Your task to perform on an android device: open app "Firefox Browser" (install if not already installed) Image 0: 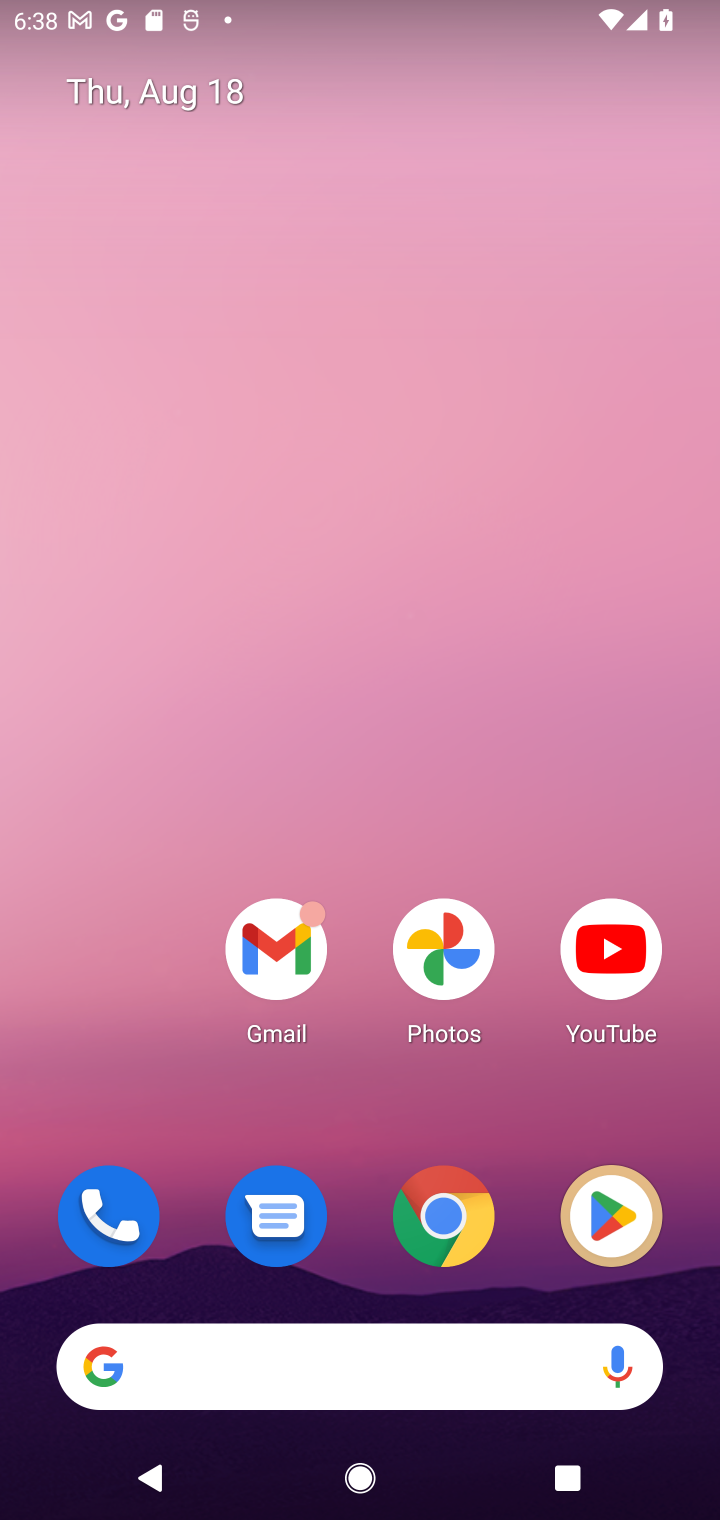
Step 0: click (608, 1220)
Your task to perform on an android device: open app "Firefox Browser" (install if not already installed) Image 1: 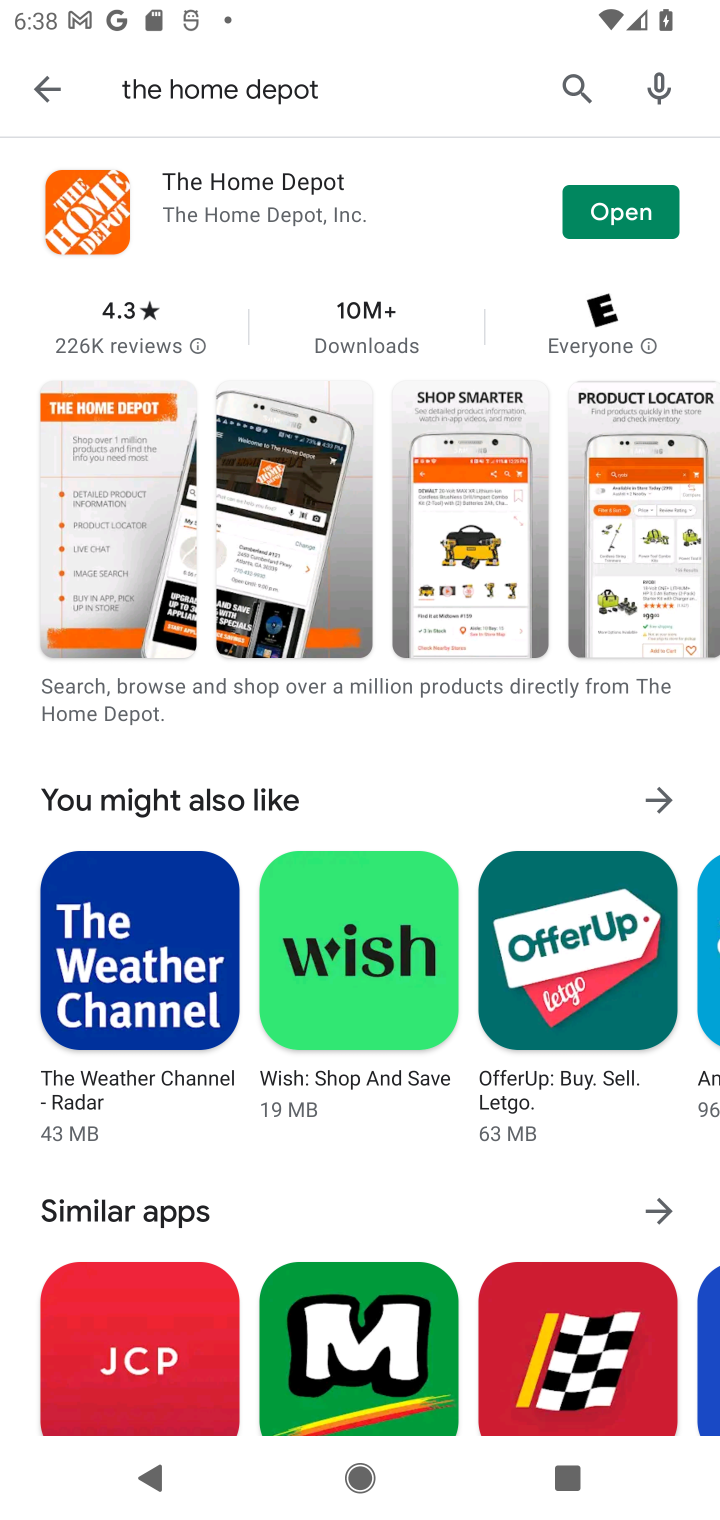
Step 1: click (567, 85)
Your task to perform on an android device: open app "Firefox Browser" (install if not already installed) Image 2: 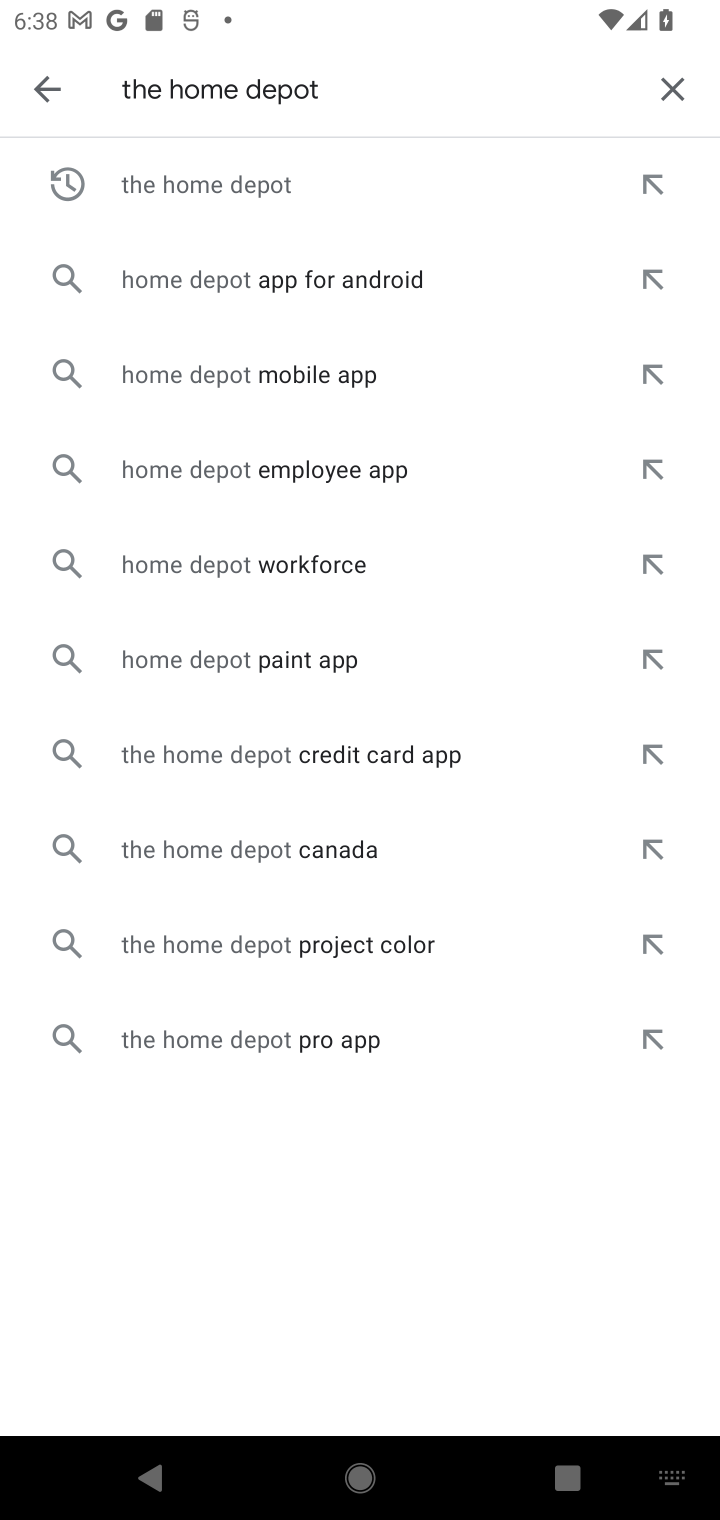
Step 2: click (667, 93)
Your task to perform on an android device: open app "Firefox Browser" (install if not already installed) Image 3: 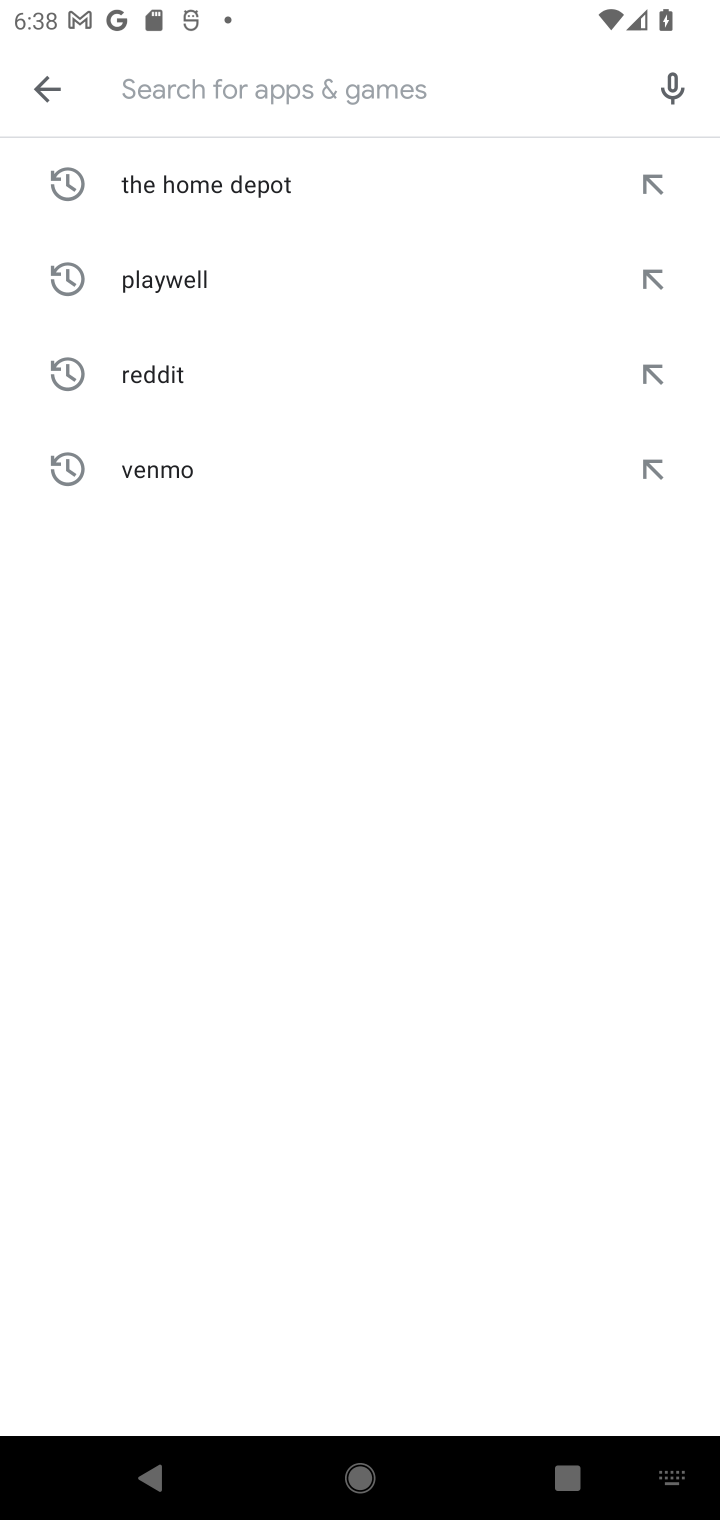
Step 3: type "Firefix Browser"
Your task to perform on an android device: open app "Firefox Browser" (install if not already installed) Image 4: 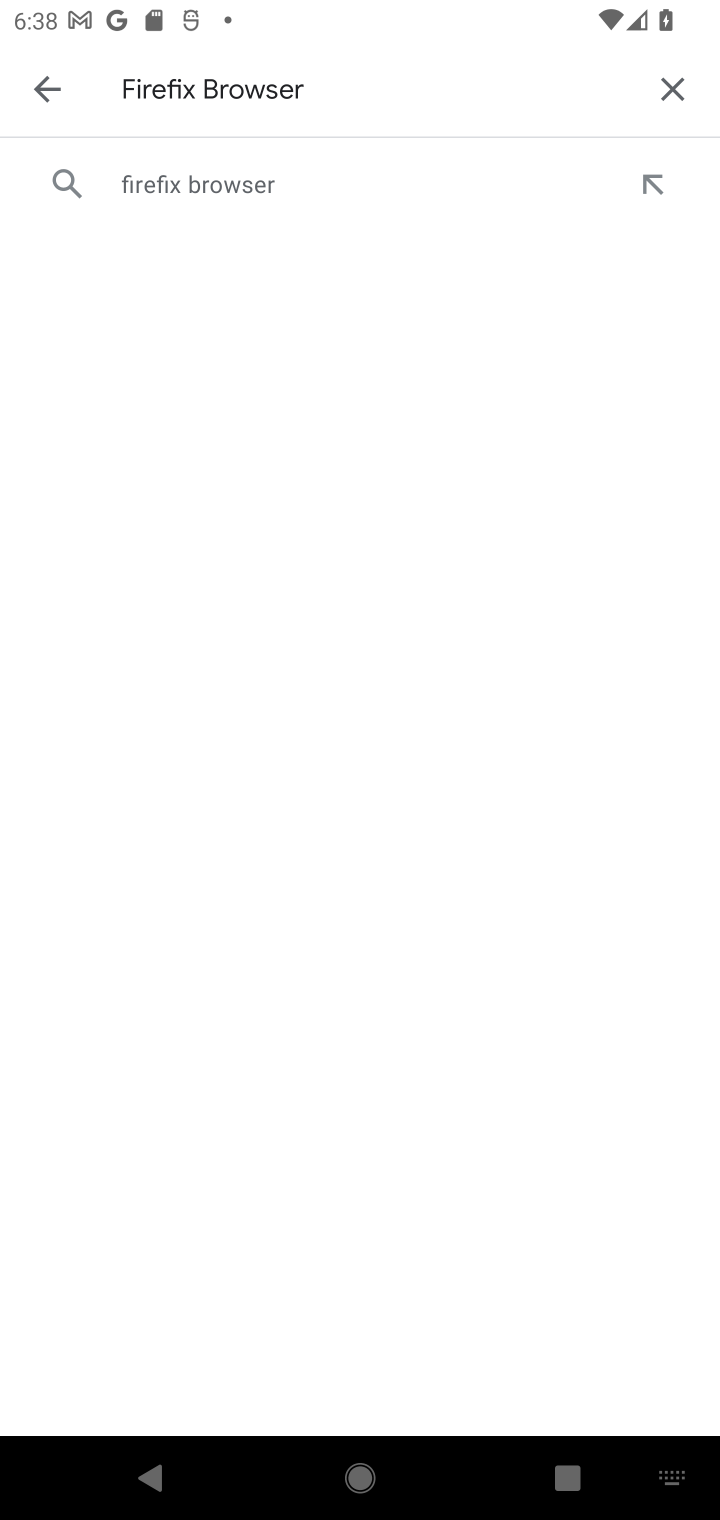
Step 4: click (177, 187)
Your task to perform on an android device: open app "Firefox Browser" (install if not already installed) Image 5: 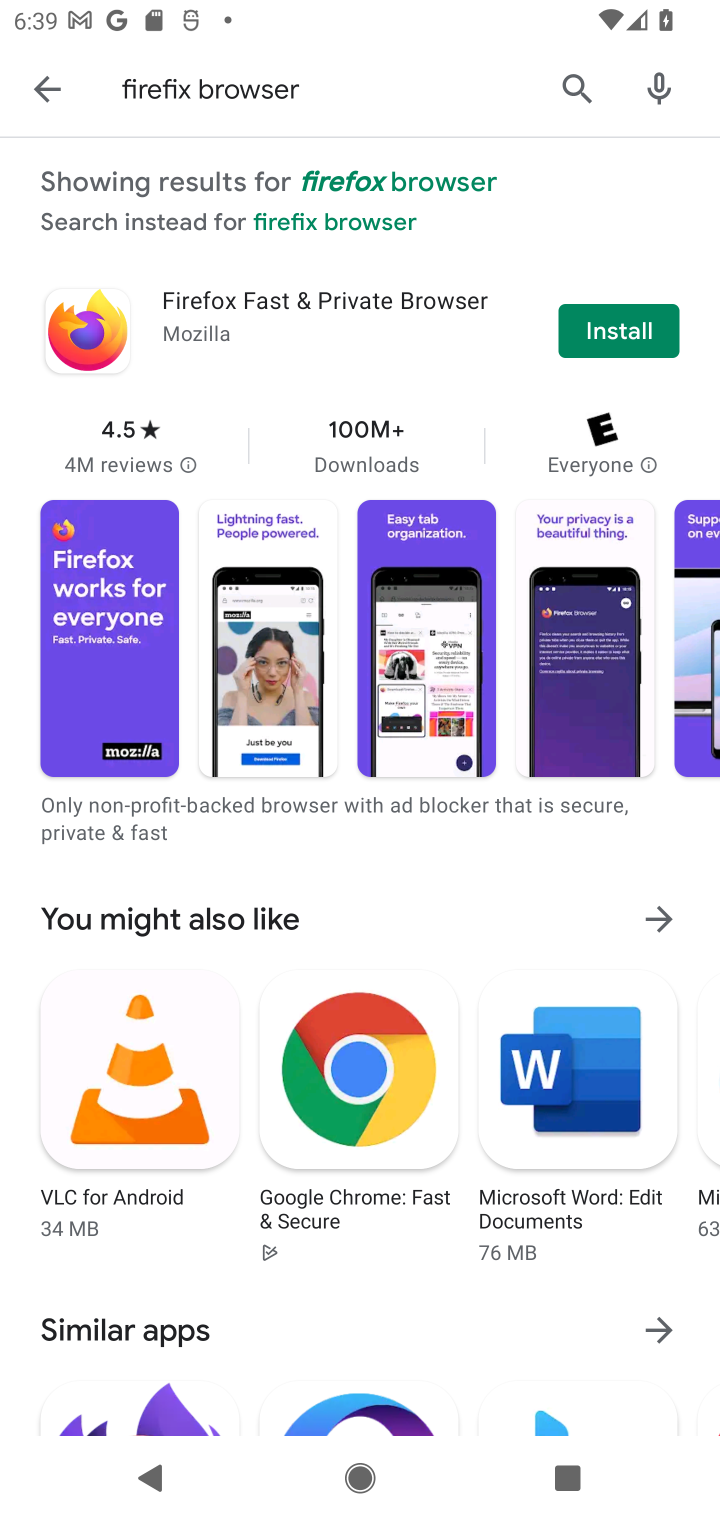
Step 5: click (613, 331)
Your task to perform on an android device: open app "Firefox Browser" (install if not already installed) Image 6: 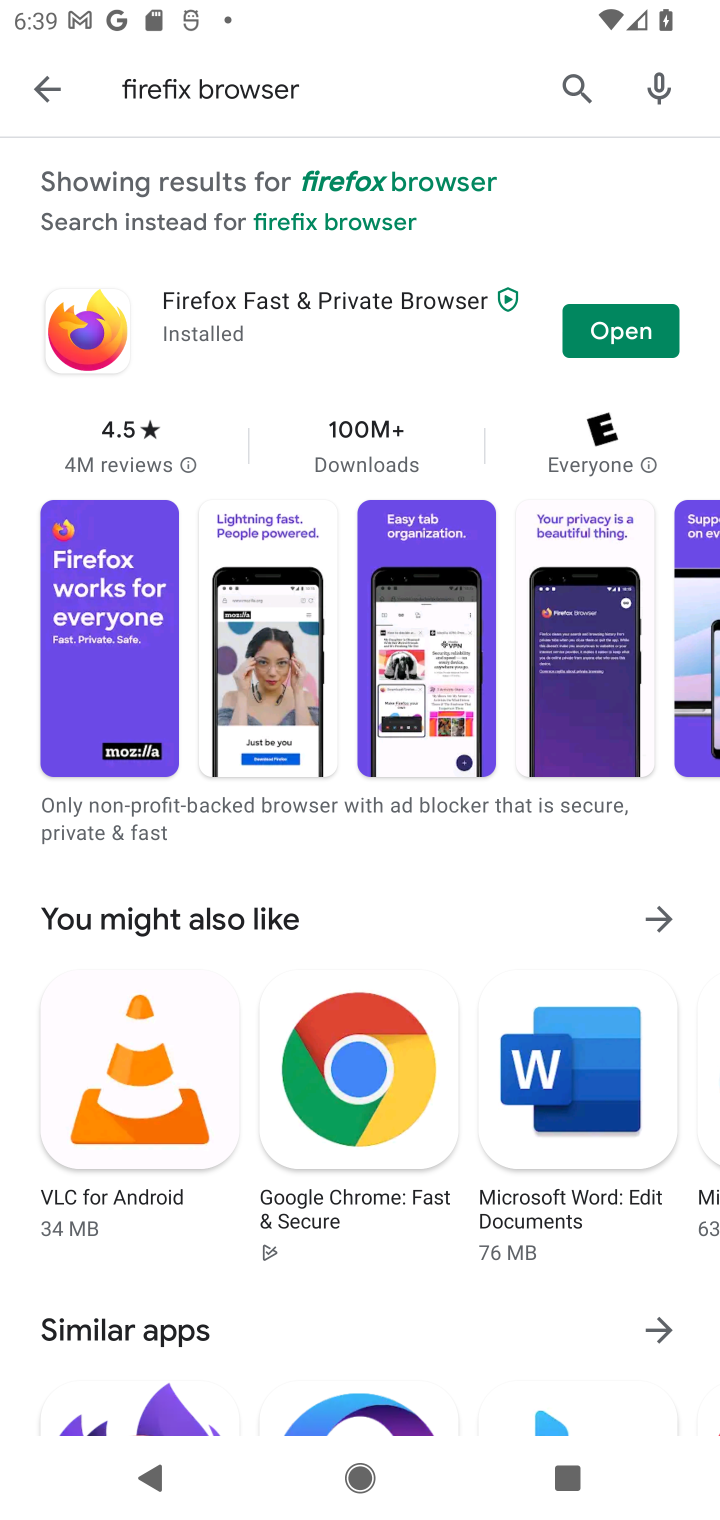
Step 6: click (619, 334)
Your task to perform on an android device: open app "Firefox Browser" (install if not already installed) Image 7: 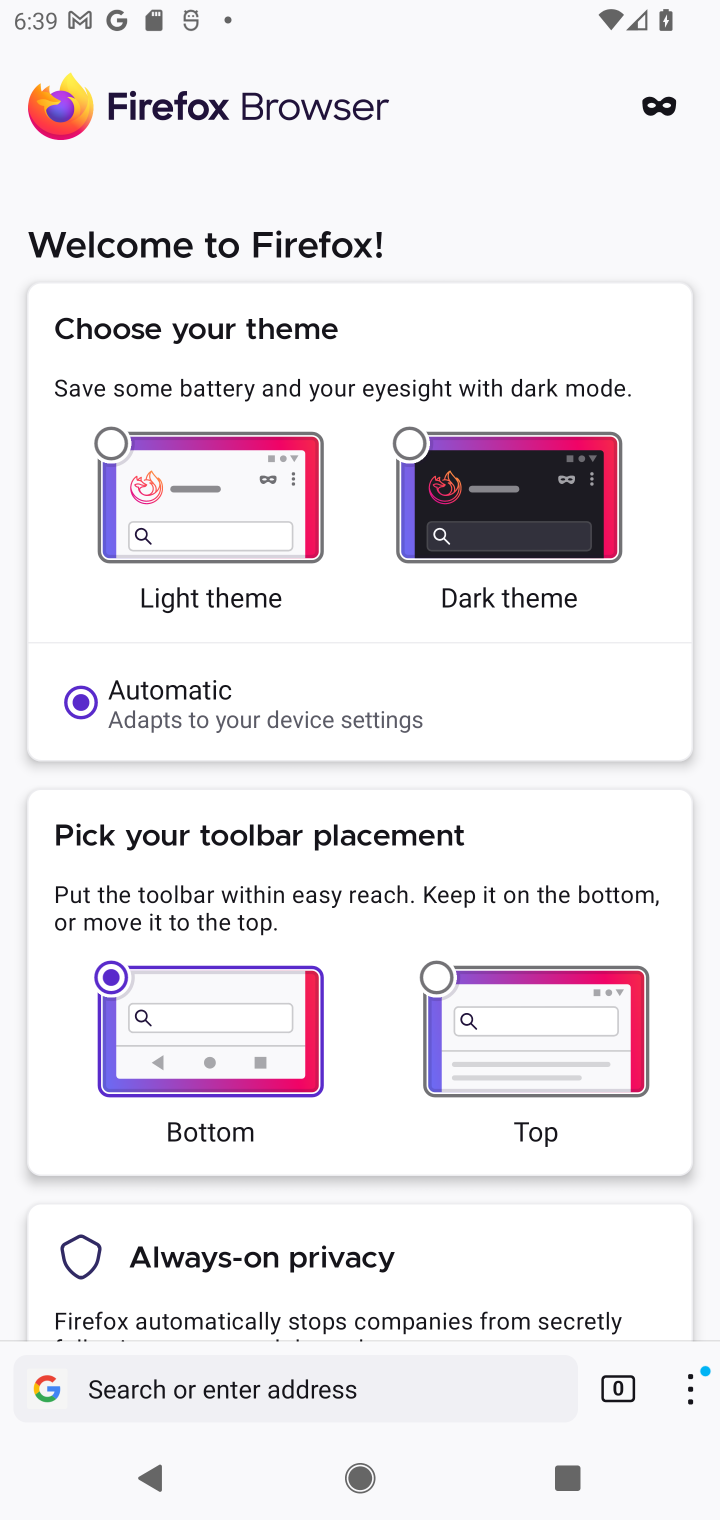
Step 7: task complete